Your task to perform on an android device: Go to ESPN.com Image 0: 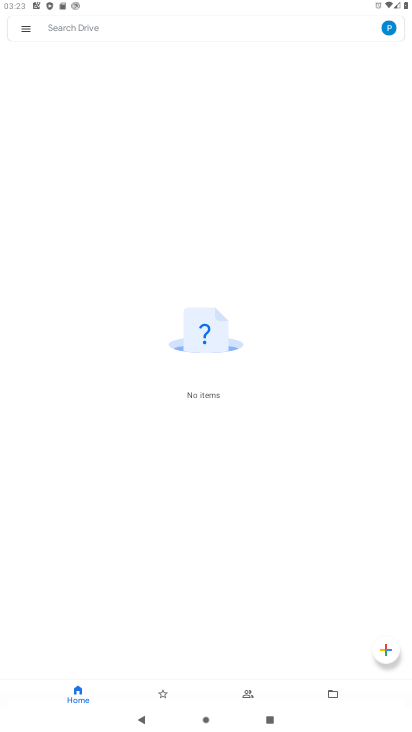
Step 0: press home button
Your task to perform on an android device: Go to ESPN.com Image 1: 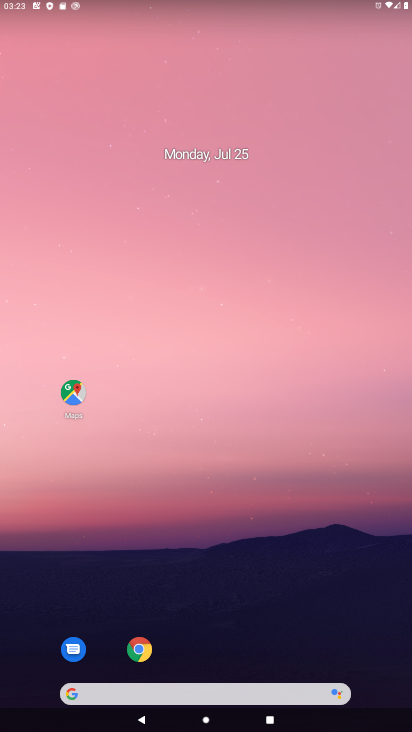
Step 1: click (140, 649)
Your task to perform on an android device: Go to ESPN.com Image 2: 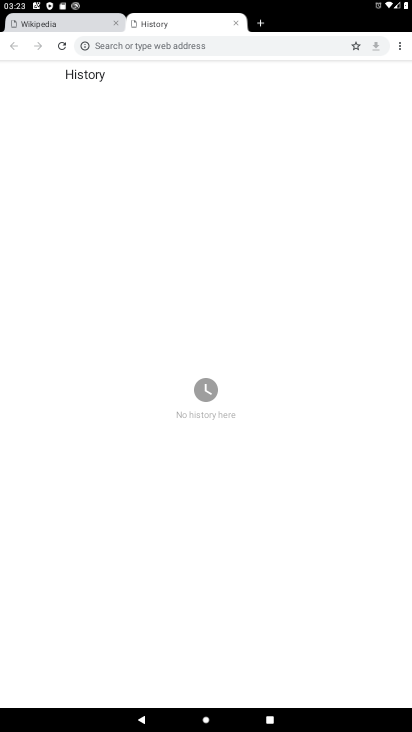
Step 2: click (152, 49)
Your task to perform on an android device: Go to ESPN.com Image 3: 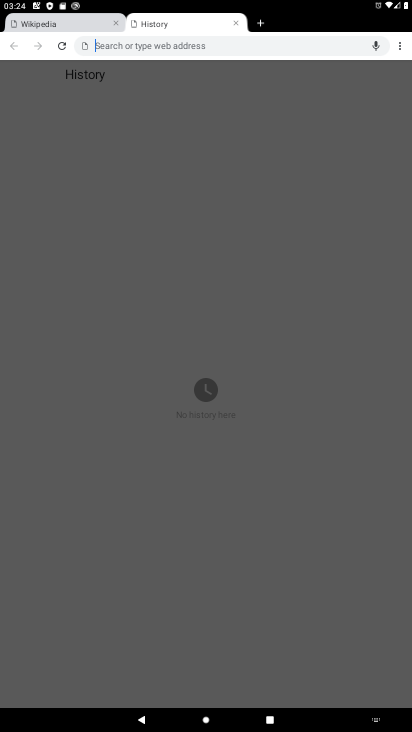
Step 3: type "espn.com"
Your task to perform on an android device: Go to ESPN.com Image 4: 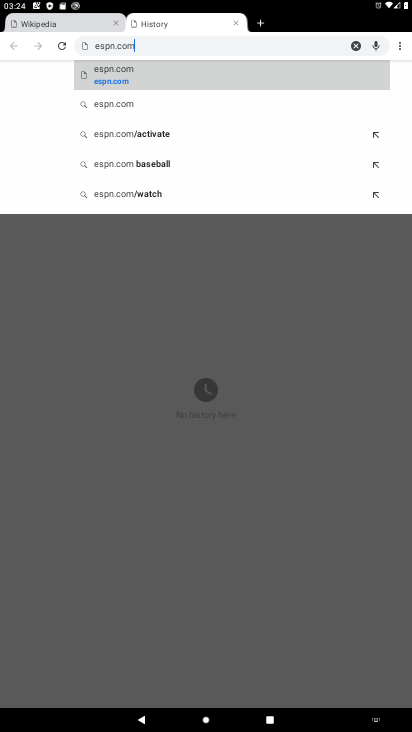
Step 4: click (110, 65)
Your task to perform on an android device: Go to ESPN.com Image 5: 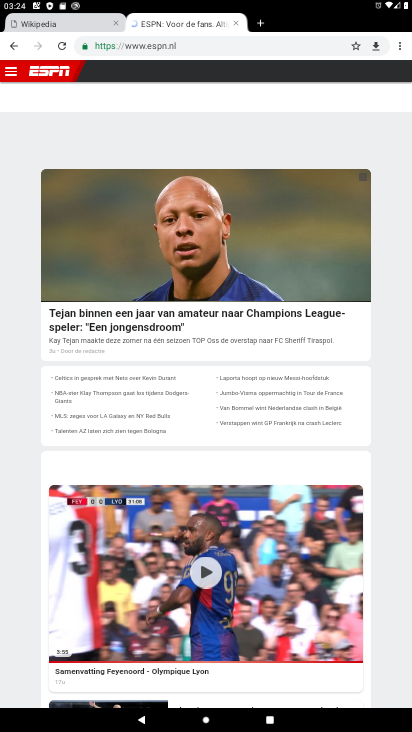
Step 5: drag from (232, 446) to (195, 51)
Your task to perform on an android device: Go to ESPN.com Image 6: 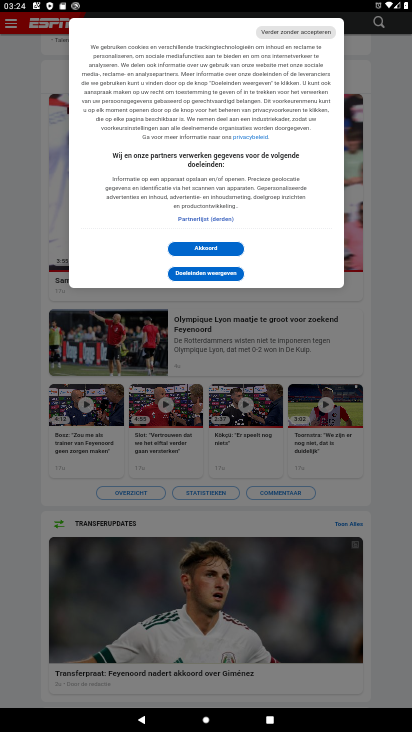
Step 6: click (201, 247)
Your task to perform on an android device: Go to ESPN.com Image 7: 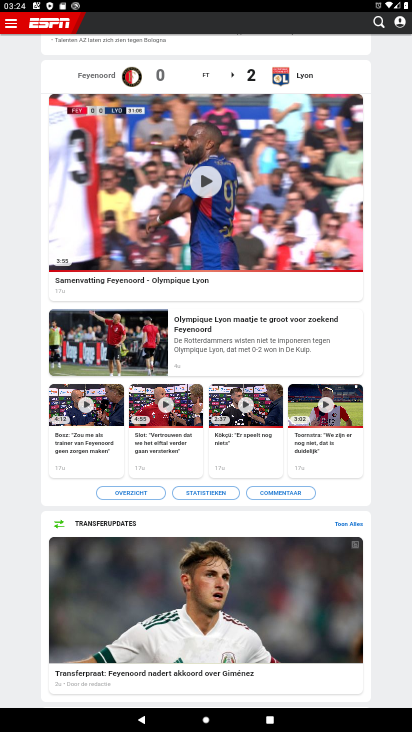
Step 7: task complete